Your task to perform on an android device: Open Amazon Image 0: 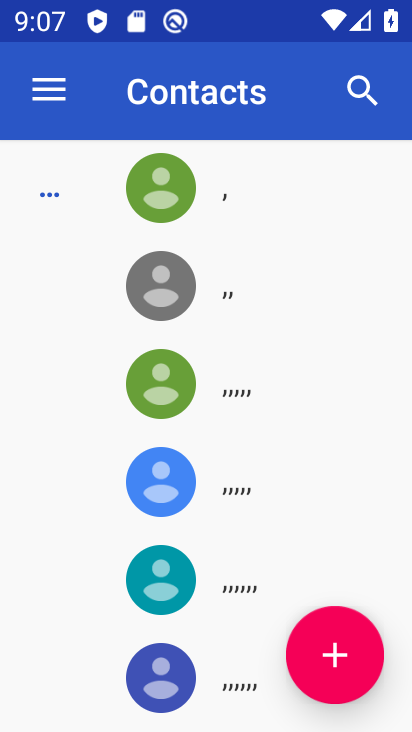
Step 0: press home button
Your task to perform on an android device: Open Amazon Image 1: 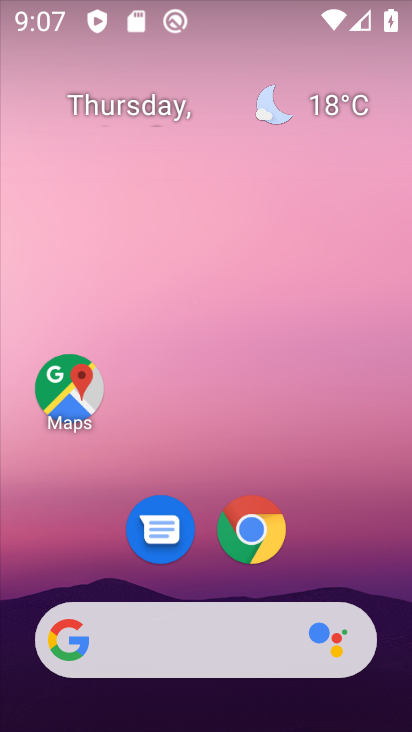
Step 1: click (259, 528)
Your task to perform on an android device: Open Amazon Image 2: 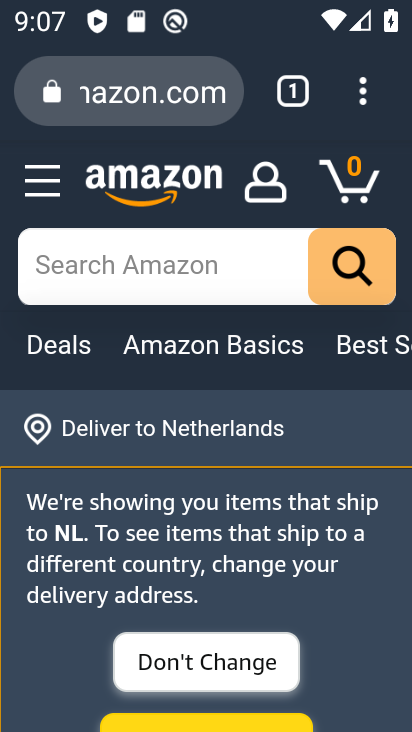
Step 2: click (227, 87)
Your task to perform on an android device: Open Amazon Image 3: 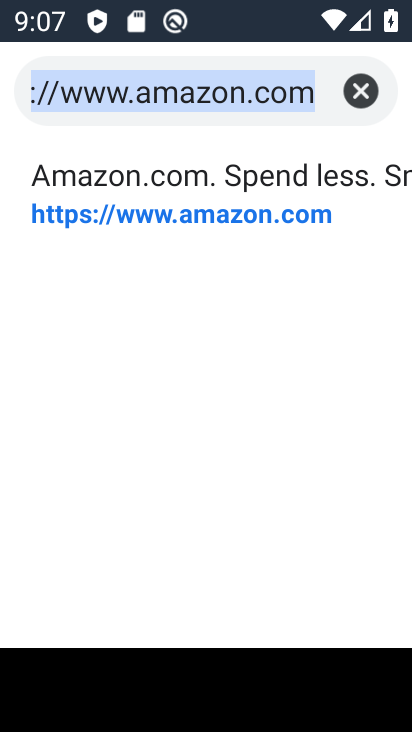
Step 3: click (335, 85)
Your task to perform on an android device: Open Amazon Image 4: 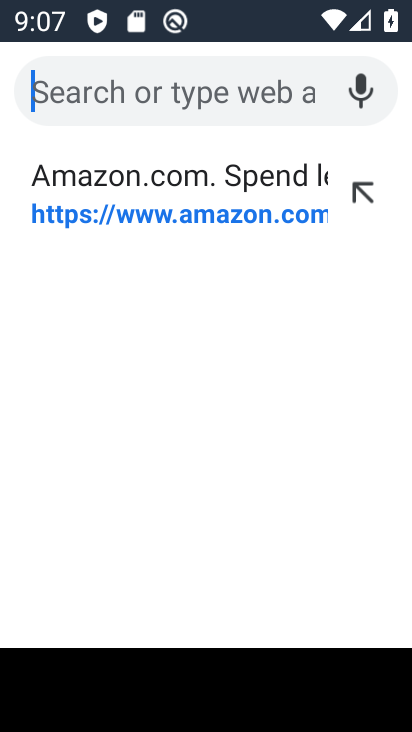
Step 4: type "Amazon"
Your task to perform on an android device: Open Amazon Image 5: 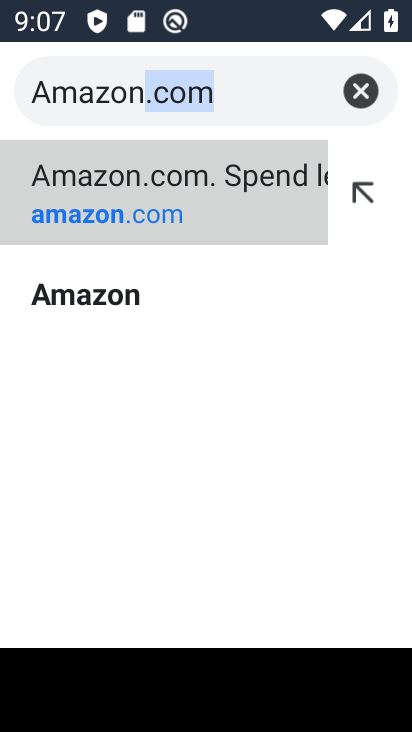
Step 5: click (75, 277)
Your task to perform on an android device: Open Amazon Image 6: 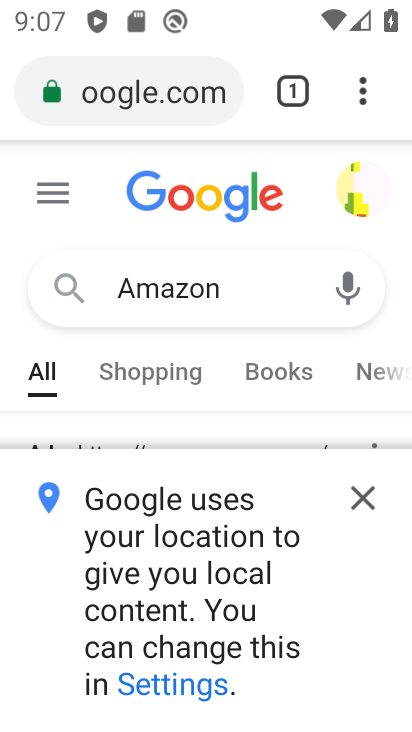
Step 6: task complete